Your task to perform on an android device: Open Maps and search for coffee Image 0: 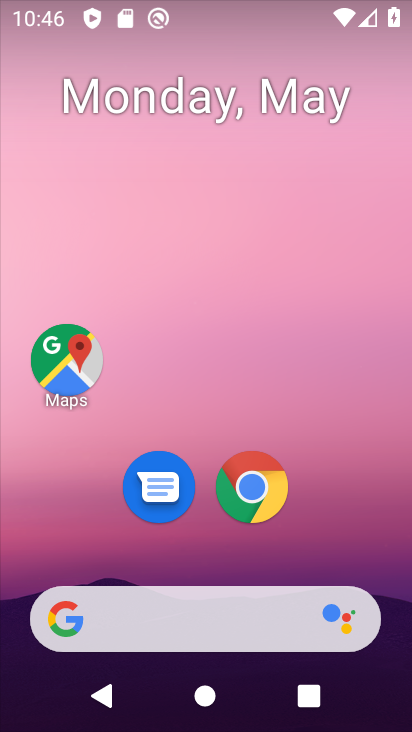
Step 0: drag from (365, 529) to (358, 210)
Your task to perform on an android device: Open Maps and search for coffee Image 1: 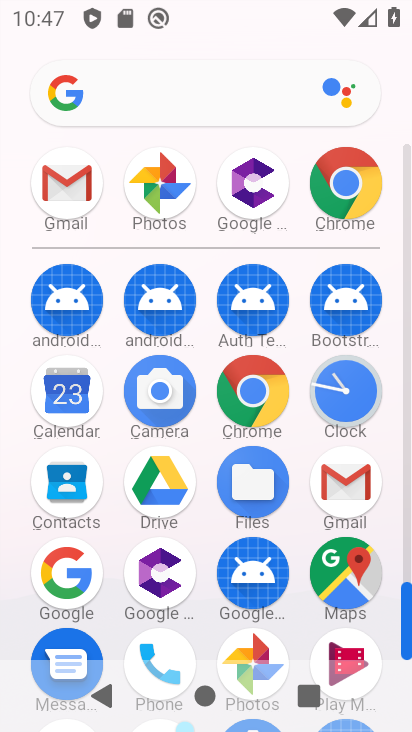
Step 1: click (364, 587)
Your task to perform on an android device: Open Maps and search for coffee Image 2: 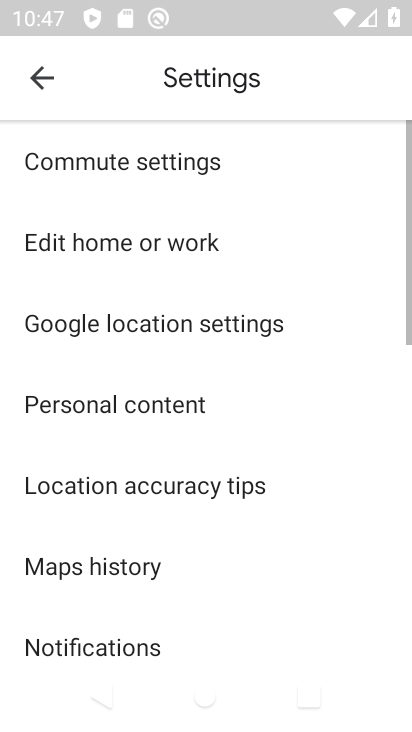
Step 2: click (35, 81)
Your task to perform on an android device: Open Maps and search for coffee Image 3: 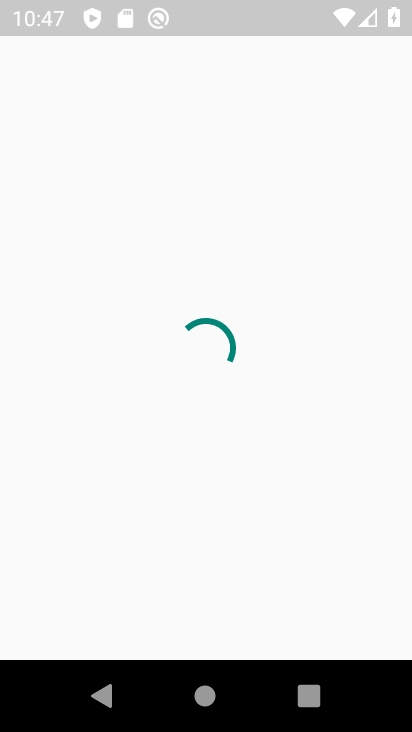
Step 3: click (214, 441)
Your task to perform on an android device: Open Maps and search for coffee Image 4: 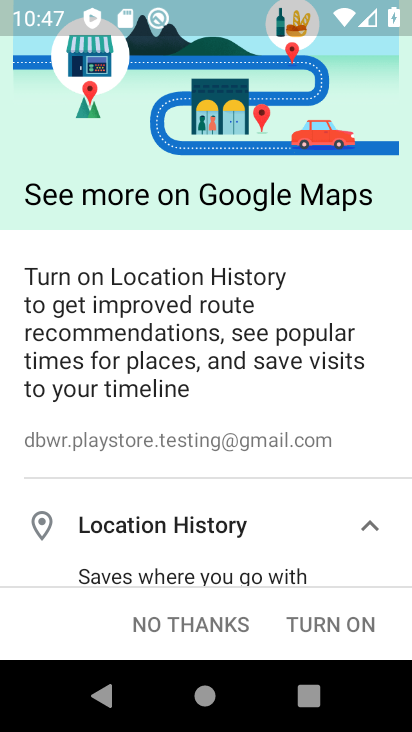
Step 4: click (243, 615)
Your task to perform on an android device: Open Maps and search for coffee Image 5: 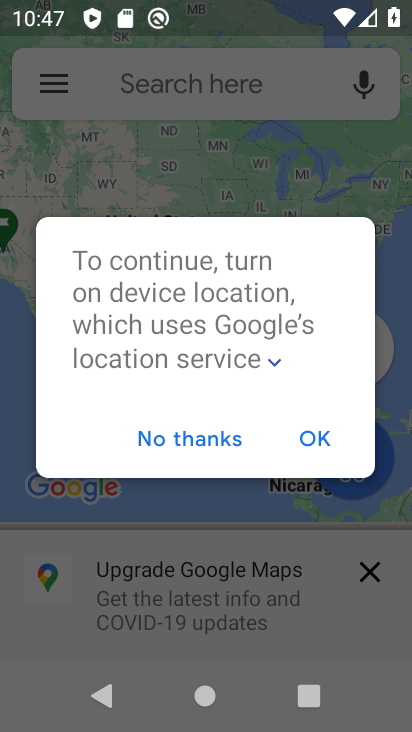
Step 5: click (121, 444)
Your task to perform on an android device: Open Maps and search for coffee Image 6: 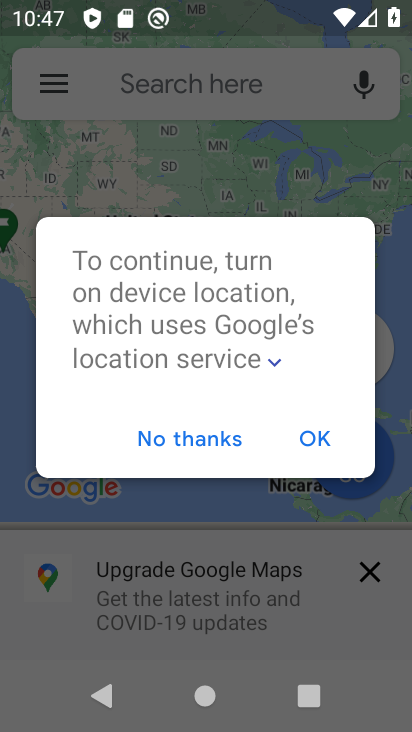
Step 6: click (227, 439)
Your task to perform on an android device: Open Maps and search for coffee Image 7: 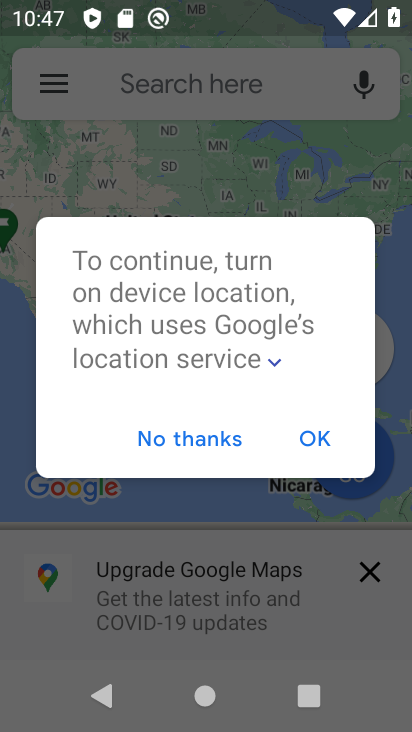
Step 7: click (189, 444)
Your task to perform on an android device: Open Maps and search for coffee Image 8: 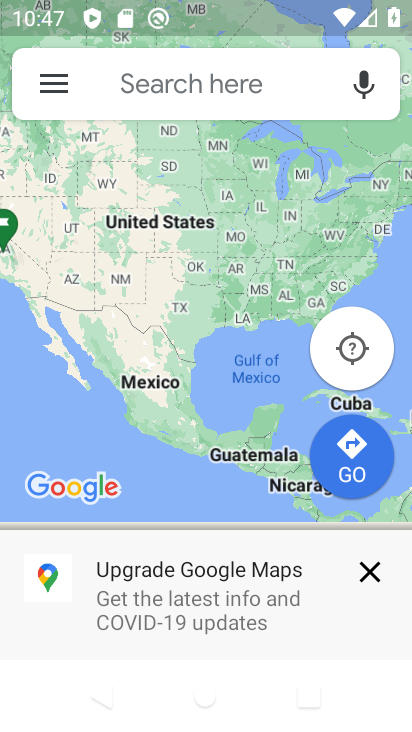
Step 8: click (127, 84)
Your task to perform on an android device: Open Maps and search for coffee Image 9: 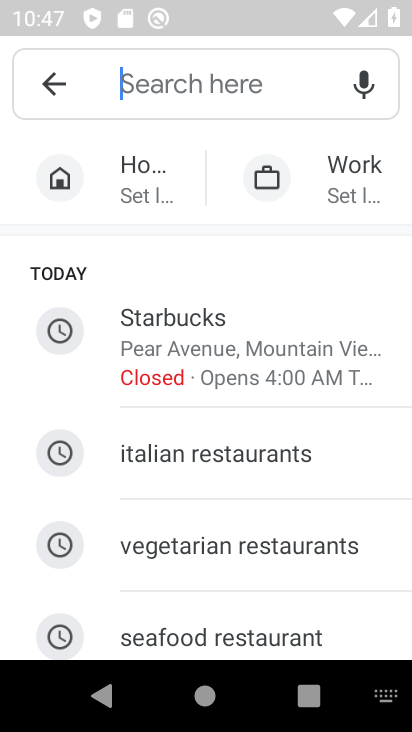
Step 9: type "coffee"
Your task to perform on an android device: Open Maps and search for coffee Image 10: 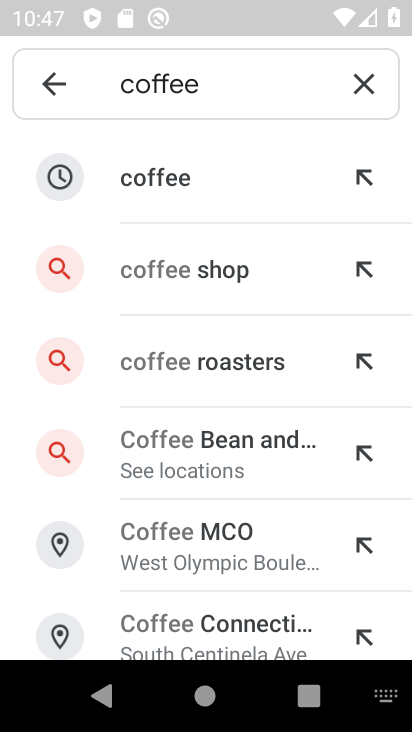
Step 10: click (124, 204)
Your task to perform on an android device: Open Maps and search for coffee Image 11: 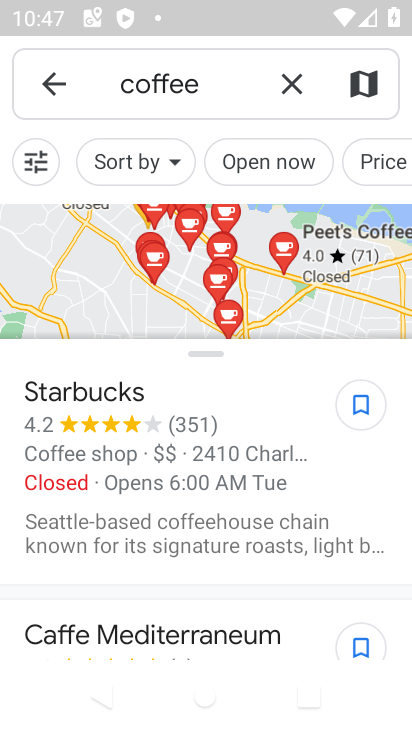
Step 11: task complete